Your task to perform on an android device: Go to eBay Image 0: 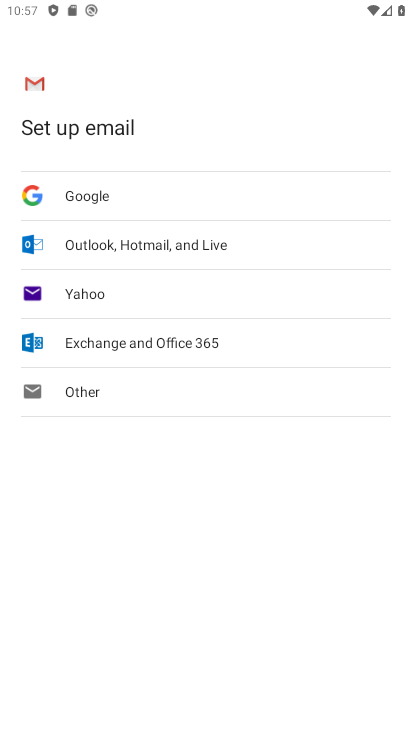
Step 0: press home button
Your task to perform on an android device: Go to eBay Image 1: 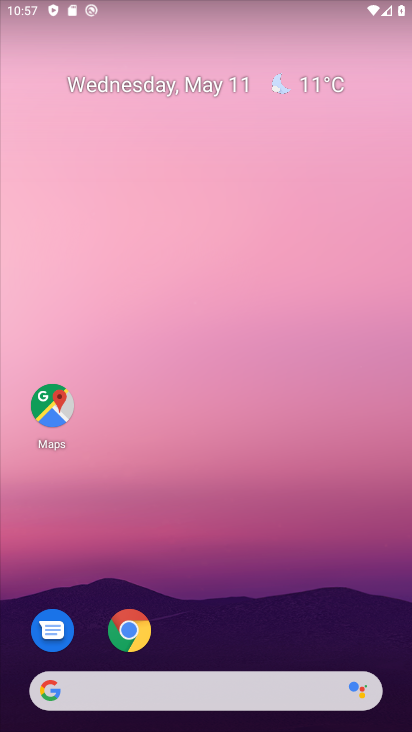
Step 1: click (121, 628)
Your task to perform on an android device: Go to eBay Image 2: 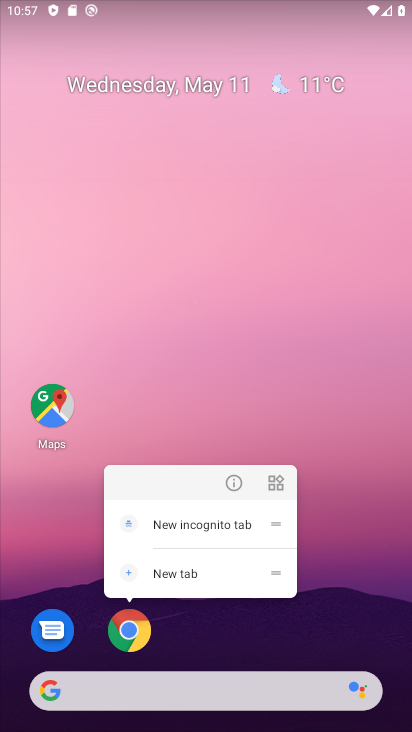
Step 2: click (130, 634)
Your task to perform on an android device: Go to eBay Image 3: 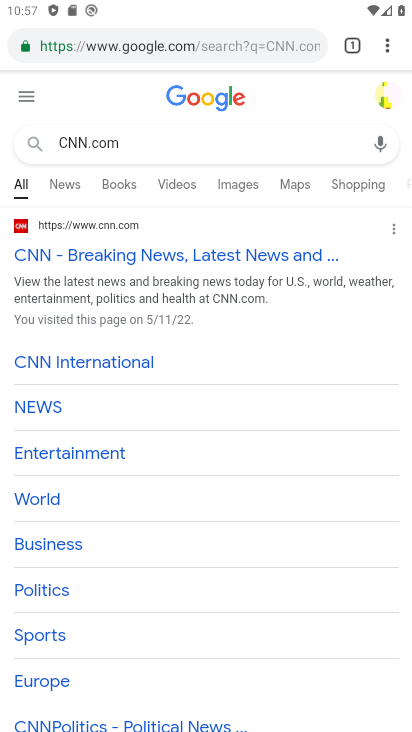
Step 3: click (100, 37)
Your task to perform on an android device: Go to eBay Image 4: 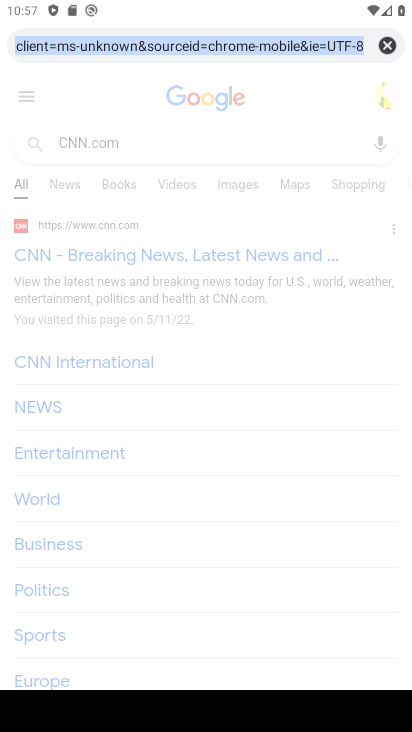
Step 4: type "eBay"
Your task to perform on an android device: Go to eBay Image 5: 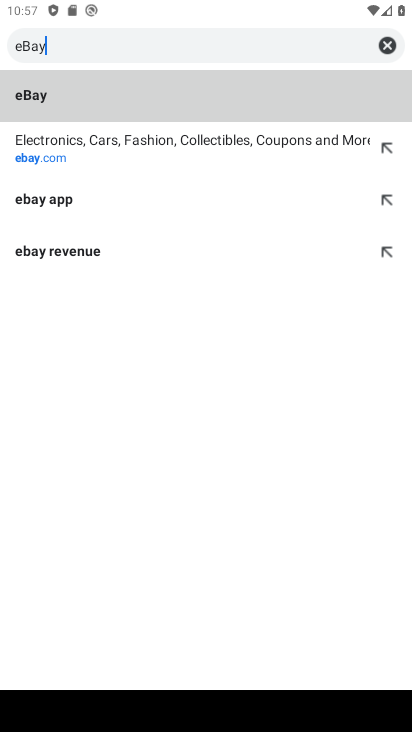
Step 5: click (135, 112)
Your task to perform on an android device: Go to eBay Image 6: 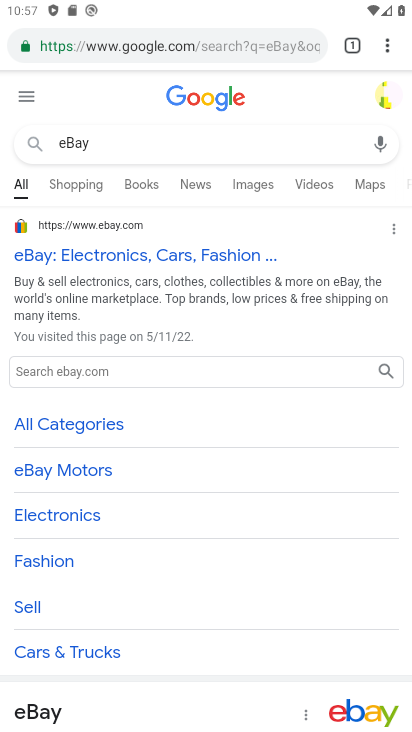
Step 6: task complete